Your task to perform on an android device: Open maps Image 0: 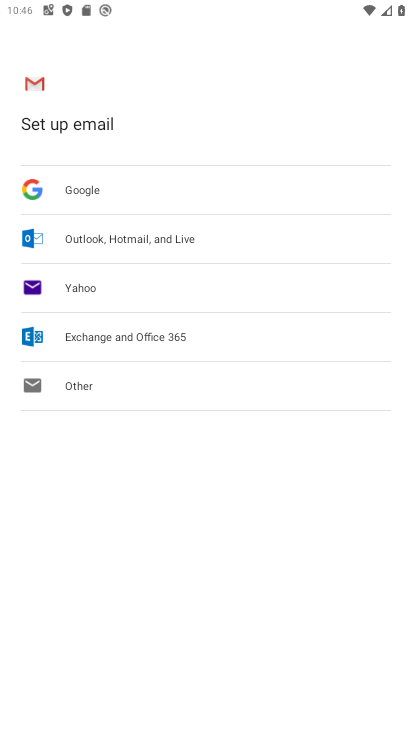
Step 0: press home button
Your task to perform on an android device: Open maps Image 1: 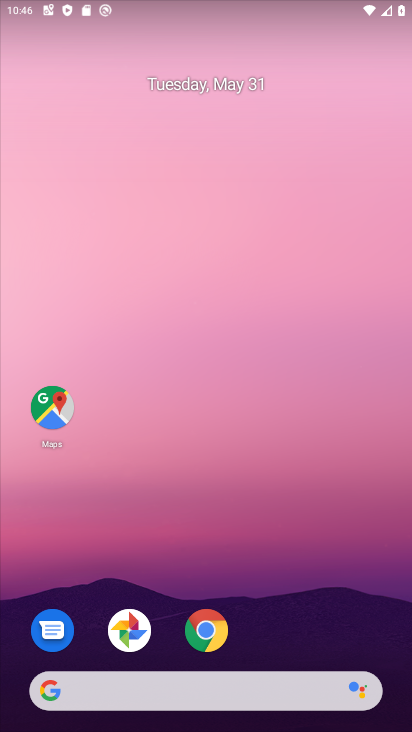
Step 1: click (45, 395)
Your task to perform on an android device: Open maps Image 2: 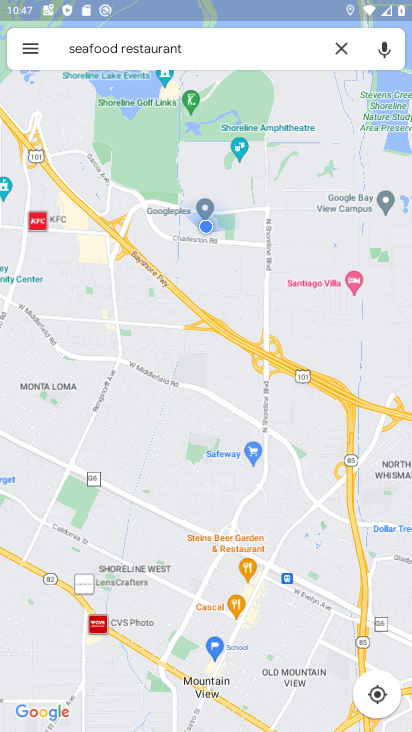
Step 2: task complete